Your task to perform on an android device: open app "Flipkart Online Shopping App" (install if not already installed) and enter user name: "fostered@gmail.com" and password: "negotiated" Image 0: 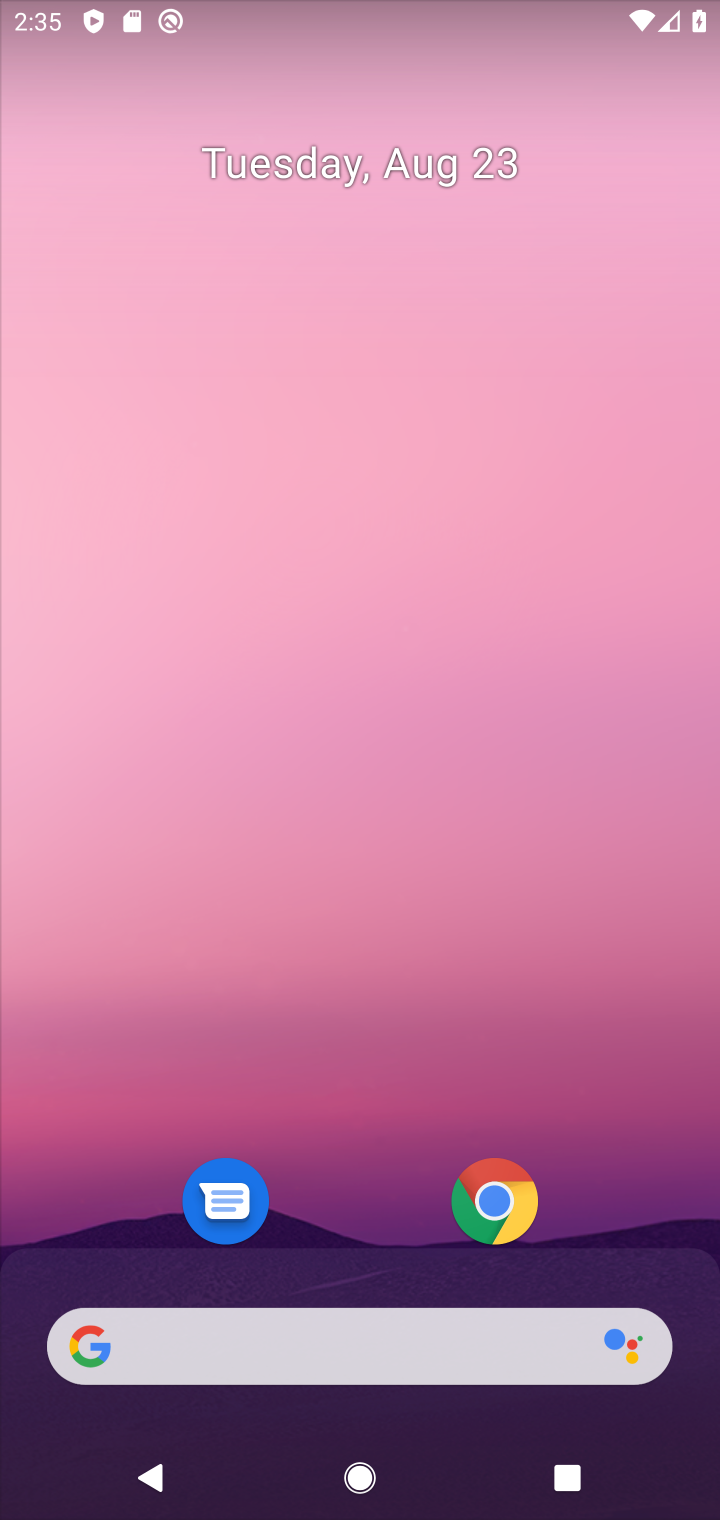
Step 0: drag from (643, 1097) to (639, 353)
Your task to perform on an android device: open app "Flipkart Online Shopping App" (install if not already installed) and enter user name: "fostered@gmail.com" and password: "negotiated" Image 1: 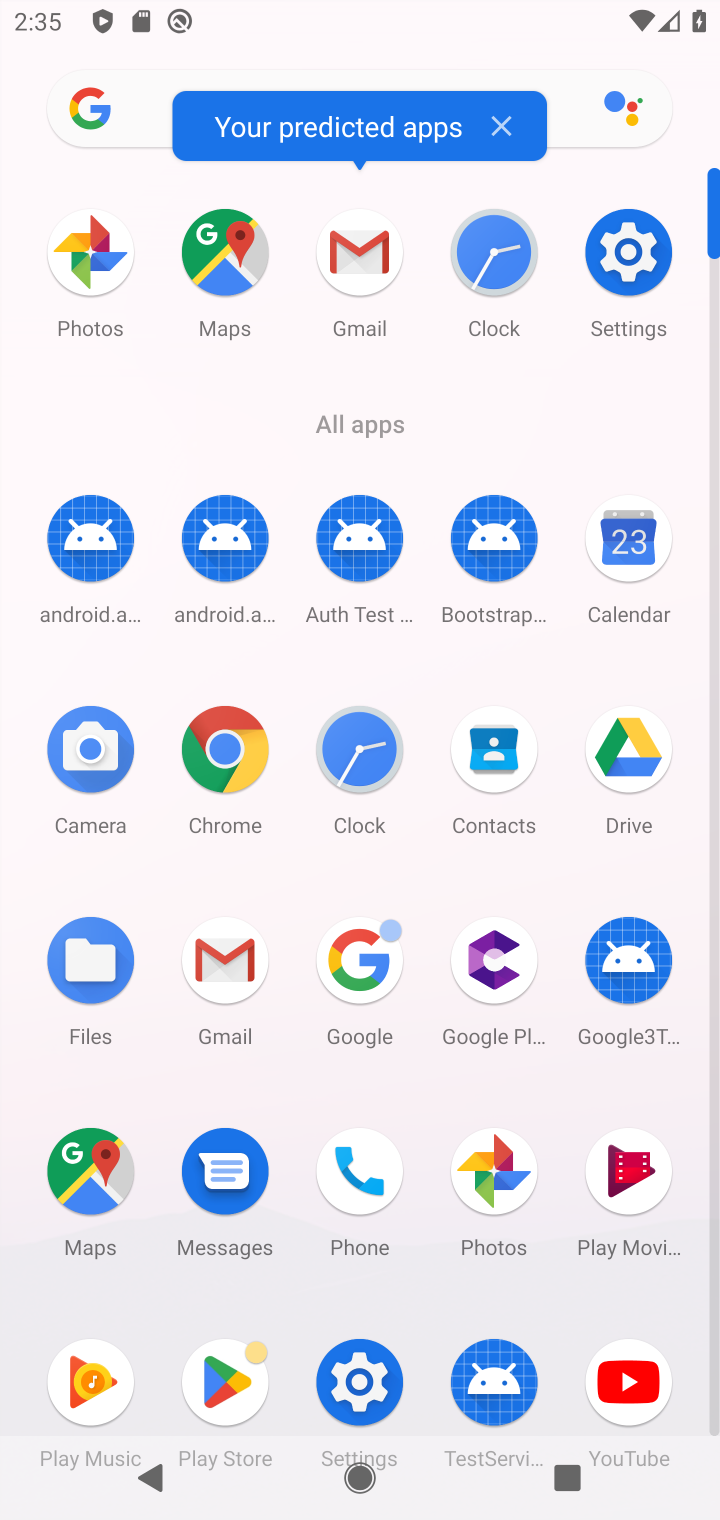
Step 1: click (712, 1366)
Your task to perform on an android device: open app "Flipkart Online Shopping App" (install if not already installed) and enter user name: "fostered@gmail.com" and password: "negotiated" Image 2: 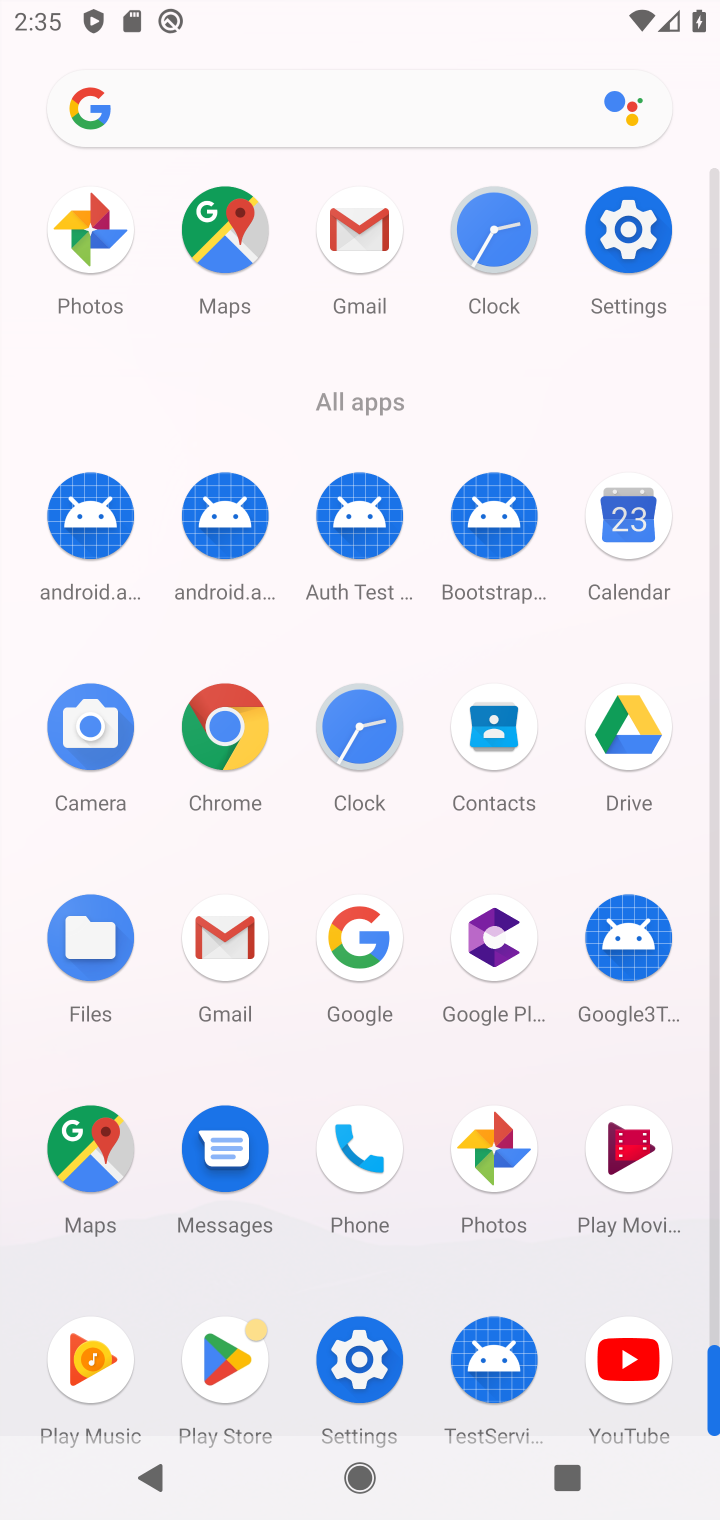
Step 2: click (227, 1355)
Your task to perform on an android device: open app "Flipkart Online Shopping App" (install if not already installed) and enter user name: "fostered@gmail.com" and password: "negotiated" Image 3: 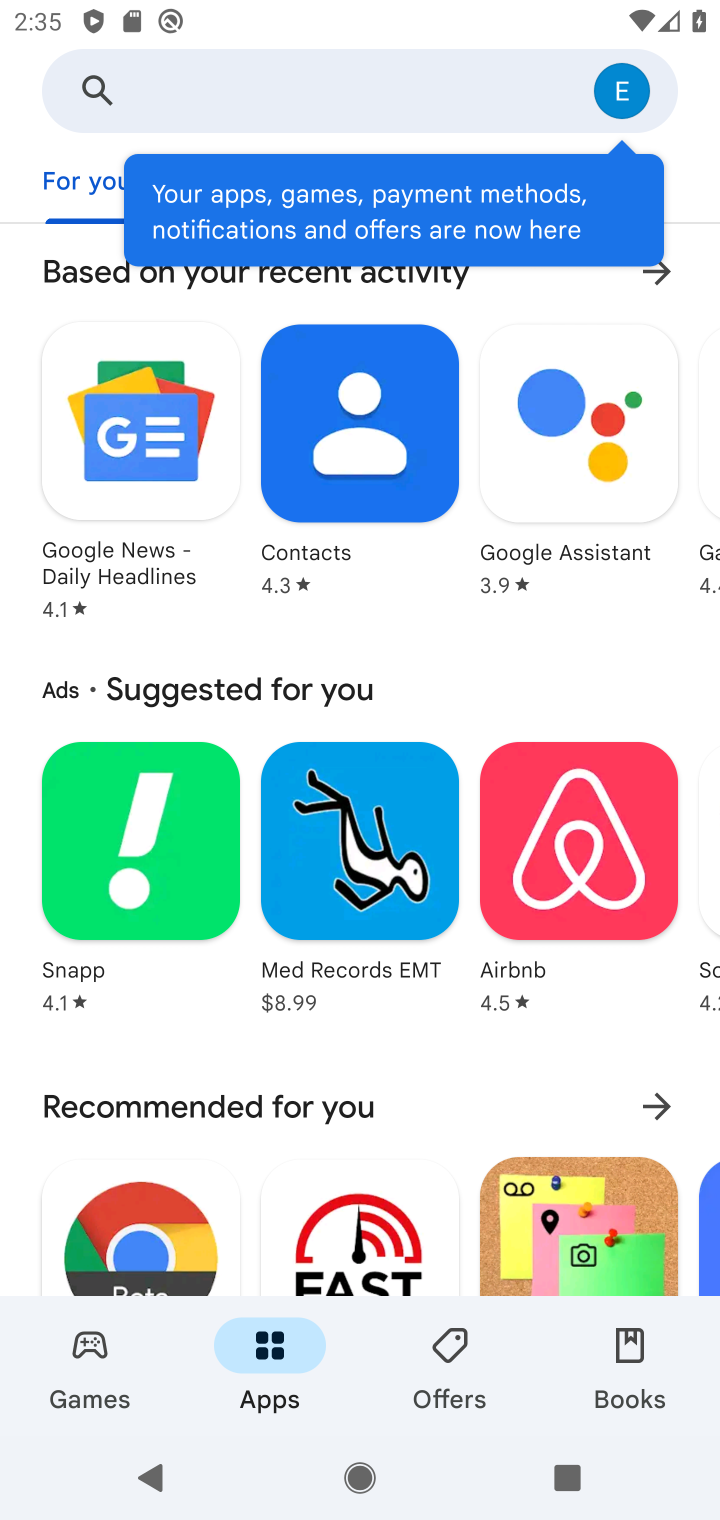
Step 3: click (93, 82)
Your task to perform on an android device: open app "Flipkart Online Shopping App" (install if not already installed) and enter user name: "fostered@gmail.com" and password: "negotiated" Image 4: 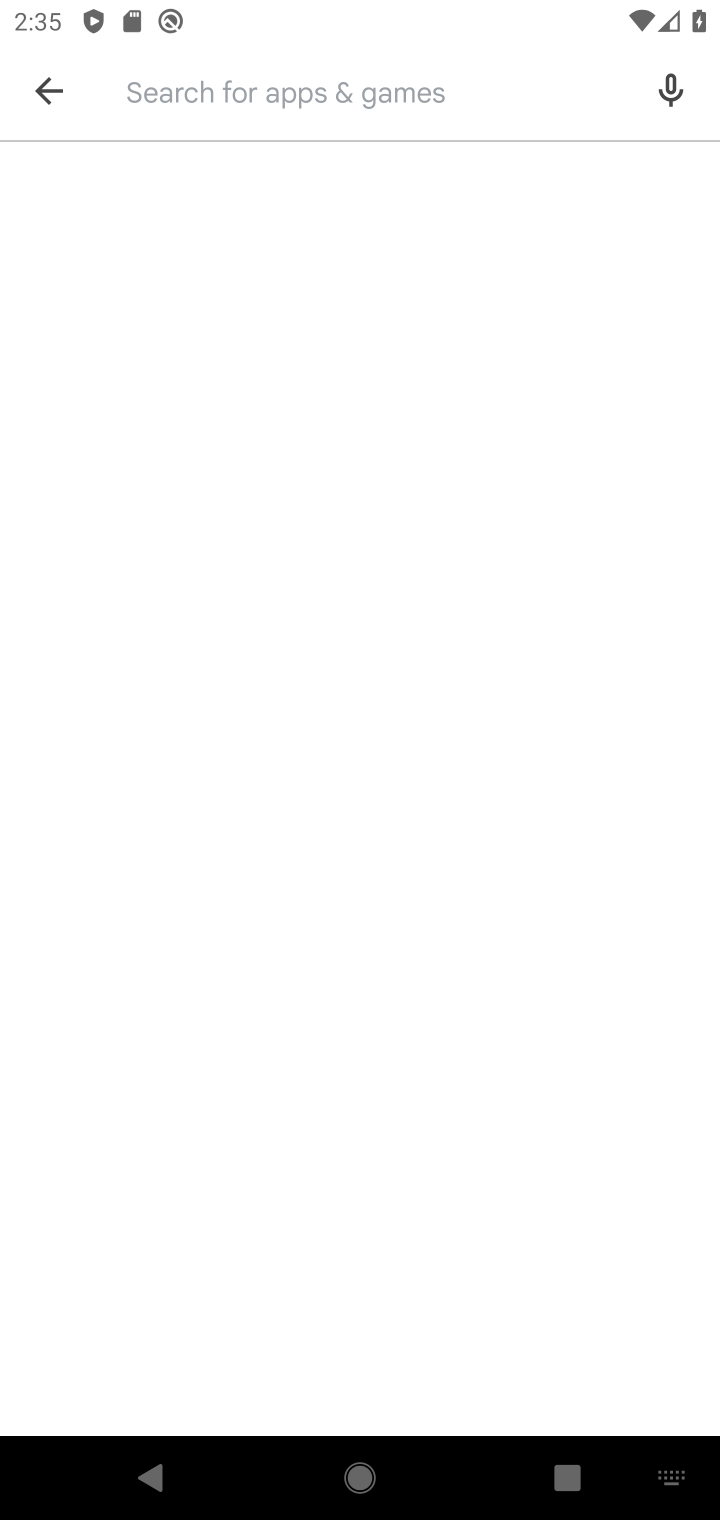
Step 4: type "Flipkart Online Shopping App"
Your task to perform on an android device: open app "Flipkart Online Shopping App" (install if not already installed) and enter user name: "fostered@gmail.com" and password: "negotiated" Image 5: 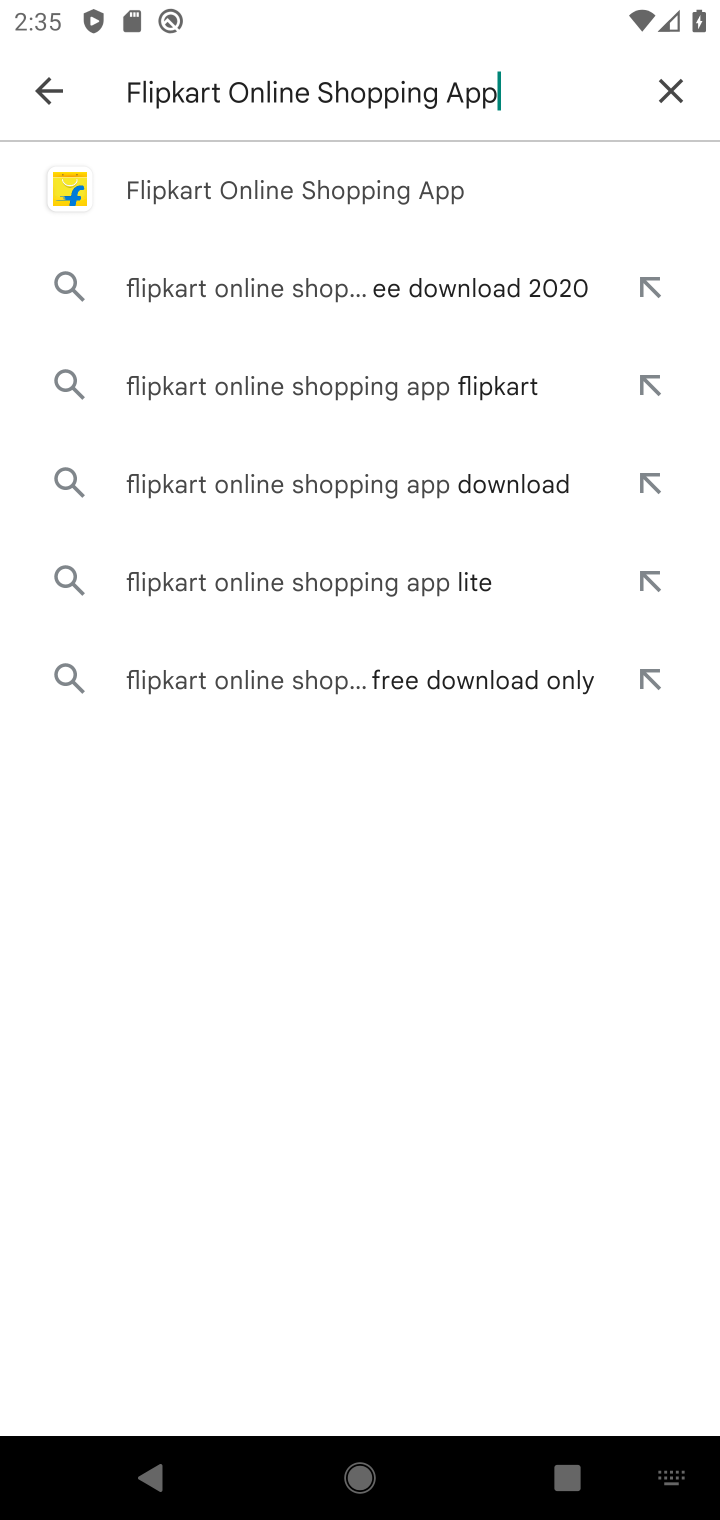
Step 5: click (251, 204)
Your task to perform on an android device: open app "Flipkart Online Shopping App" (install if not already installed) and enter user name: "fostered@gmail.com" and password: "negotiated" Image 6: 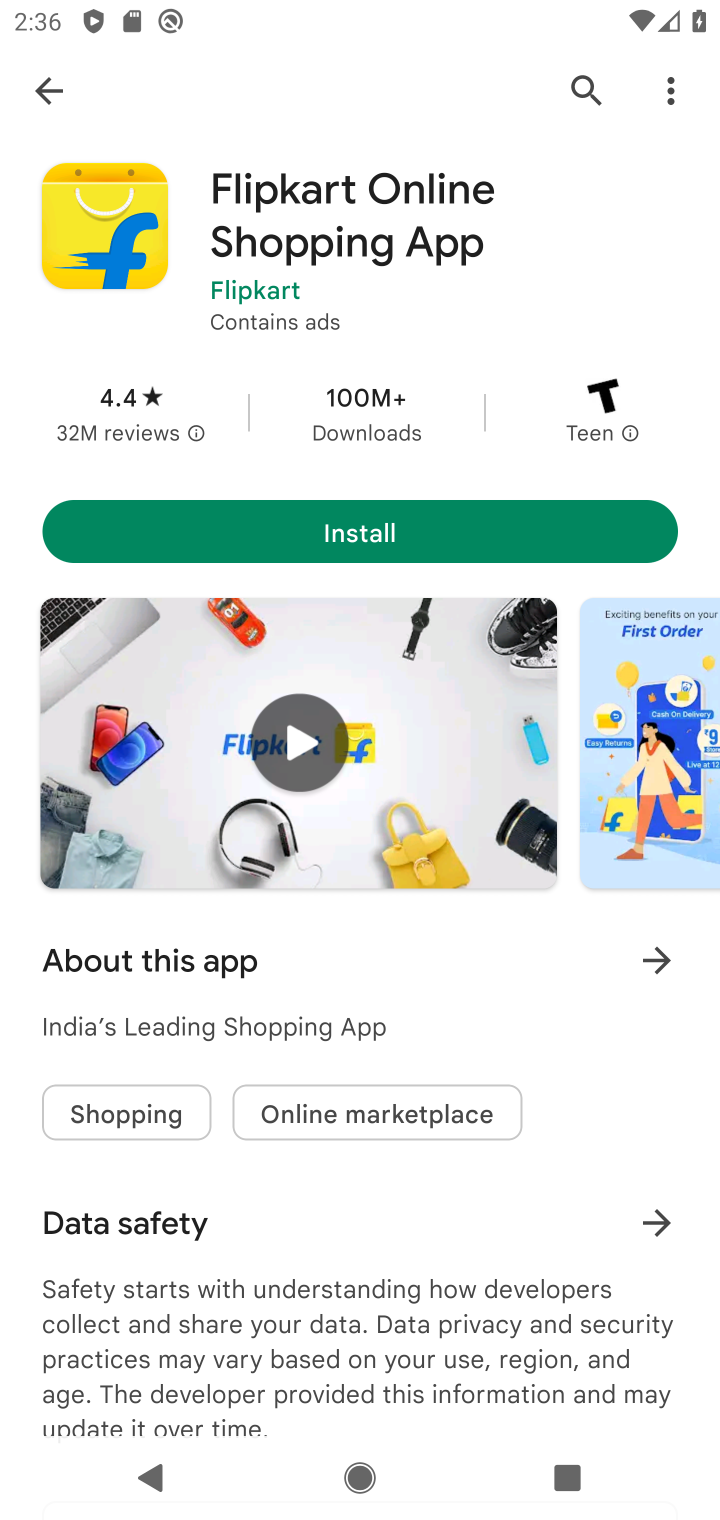
Step 6: click (360, 520)
Your task to perform on an android device: open app "Flipkart Online Shopping App" (install if not already installed) and enter user name: "fostered@gmail.com" and password: "negotiated" Image 7: 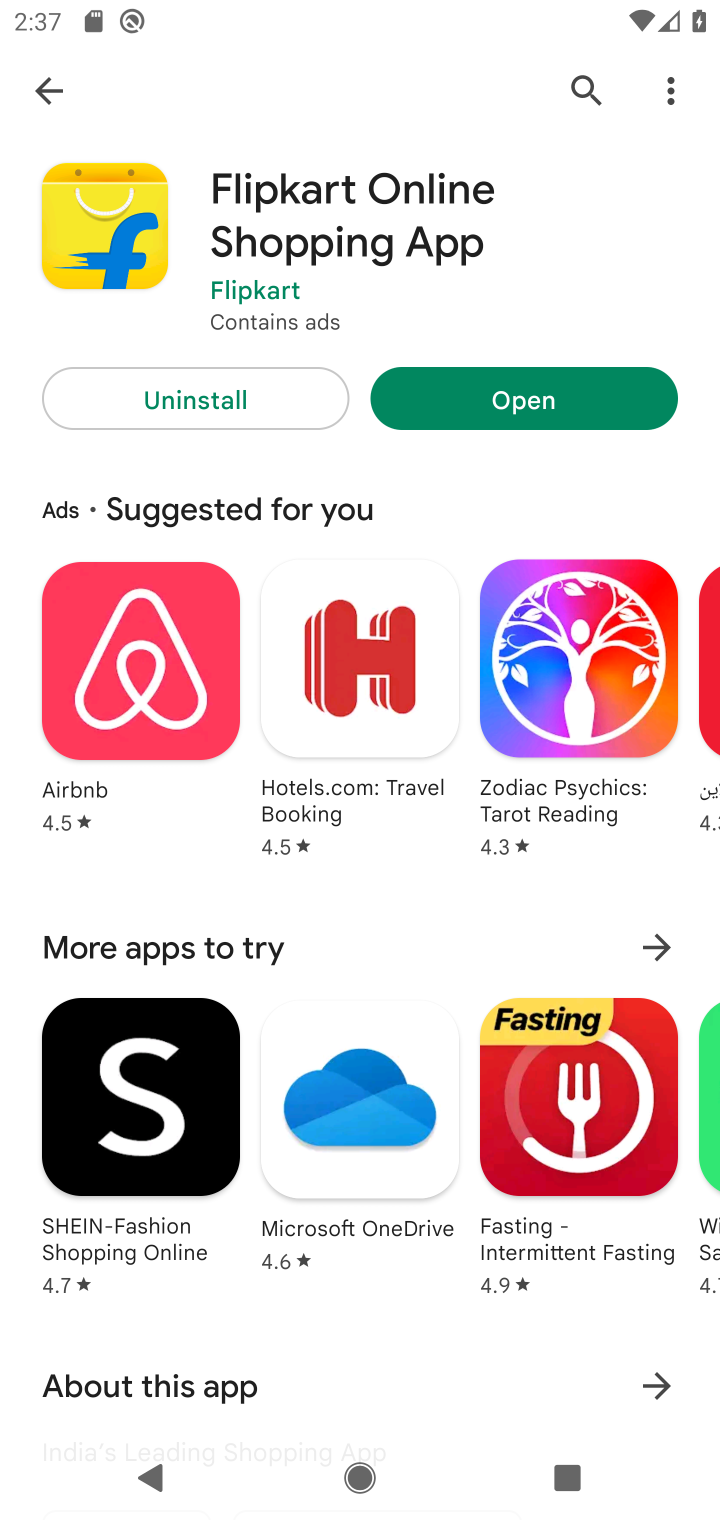
Step 7: click (542, 411)
Your task to perform on an android device: open app "Flipkart Online Shopping App" (install if not already installed) and enter user name: "fostered@gmail.com" and password: "negotiated" Image 8: 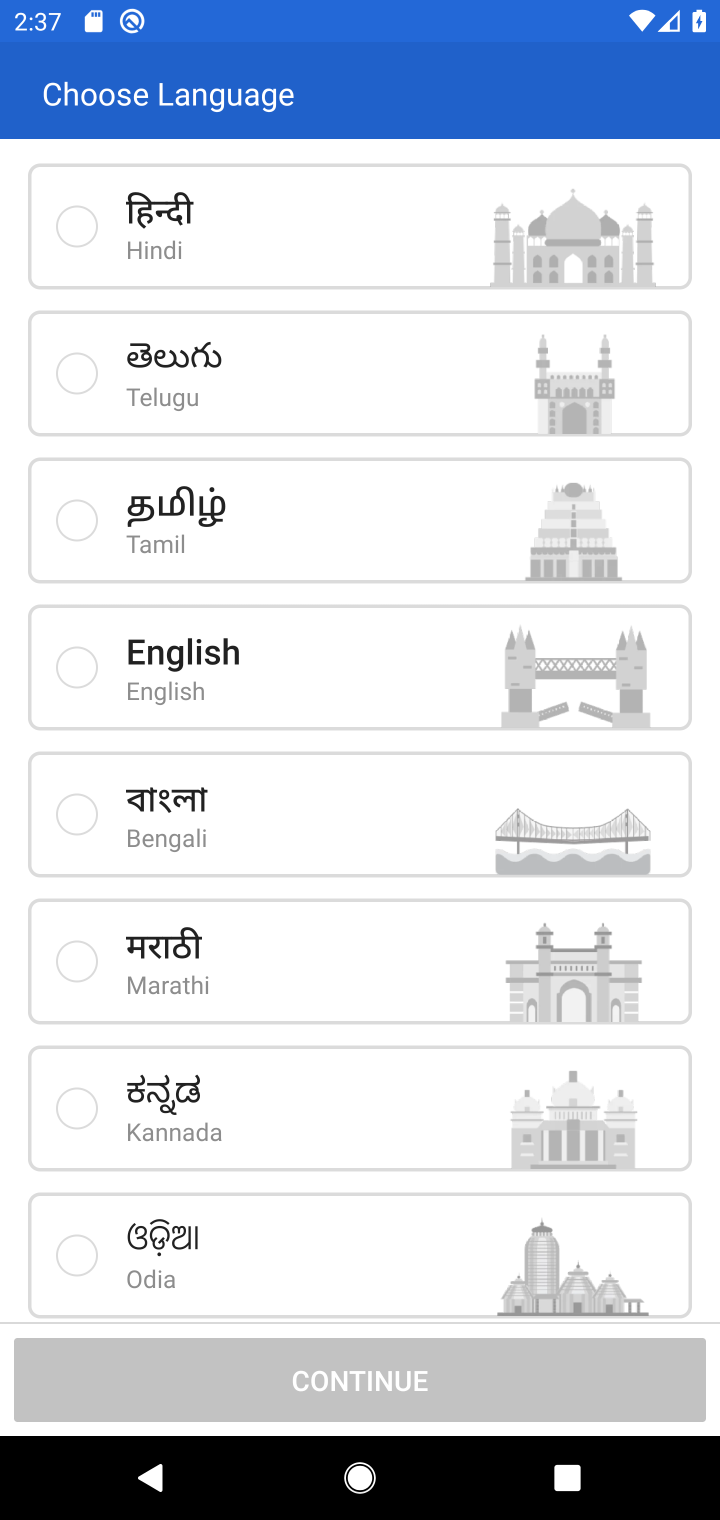
Step 8: click (201, 668)
Your task to perform on an android device: open app "Flipkart Online Shopping App" (install if not already installed) and enter user name: "fostered@gmail.com" and password: "negotiated" Image 9: 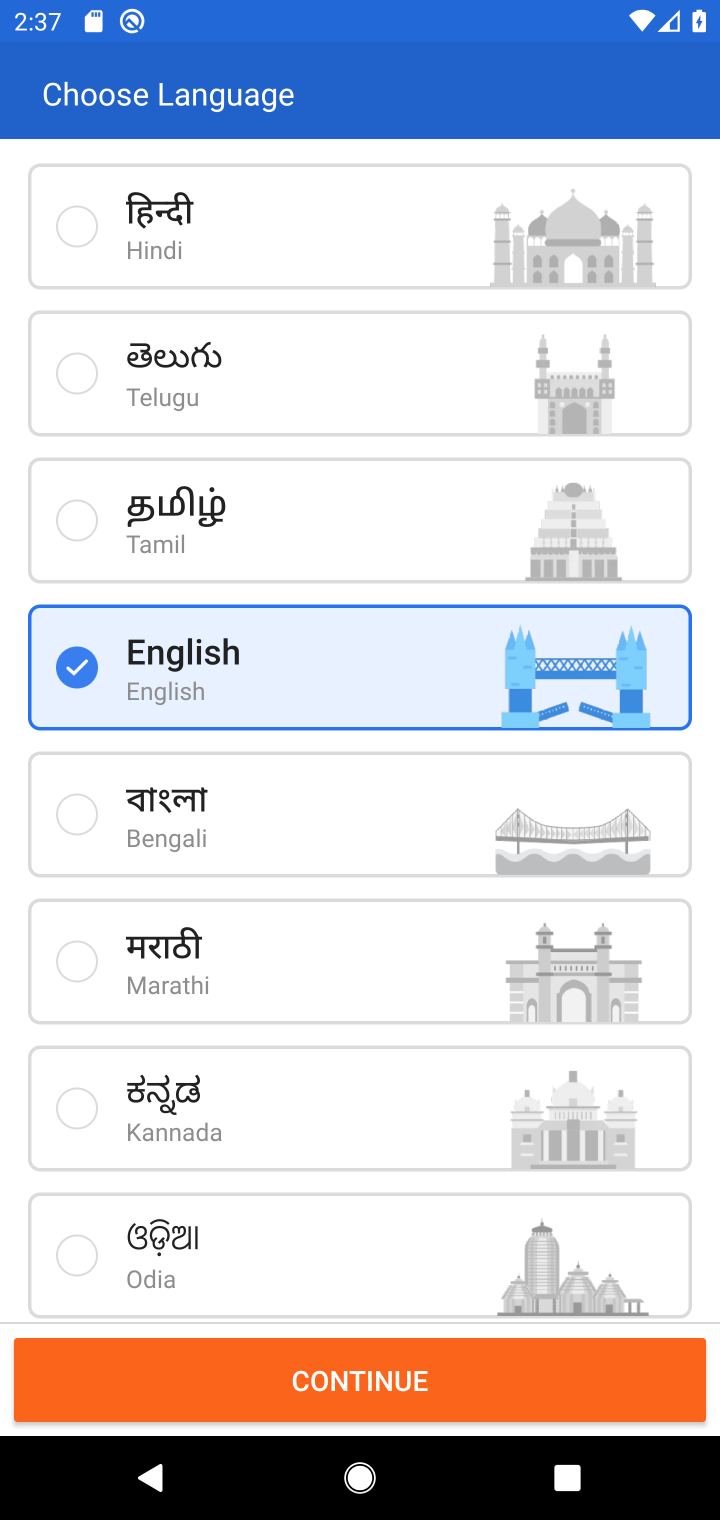
Step 9: click (364, 1370)
Your task to perform on an android device: open app "Flipkart Online Shopping App" (install if not already installed) and enter user name: "fostered@gmail.com" and password: "negotiated" Image 10: 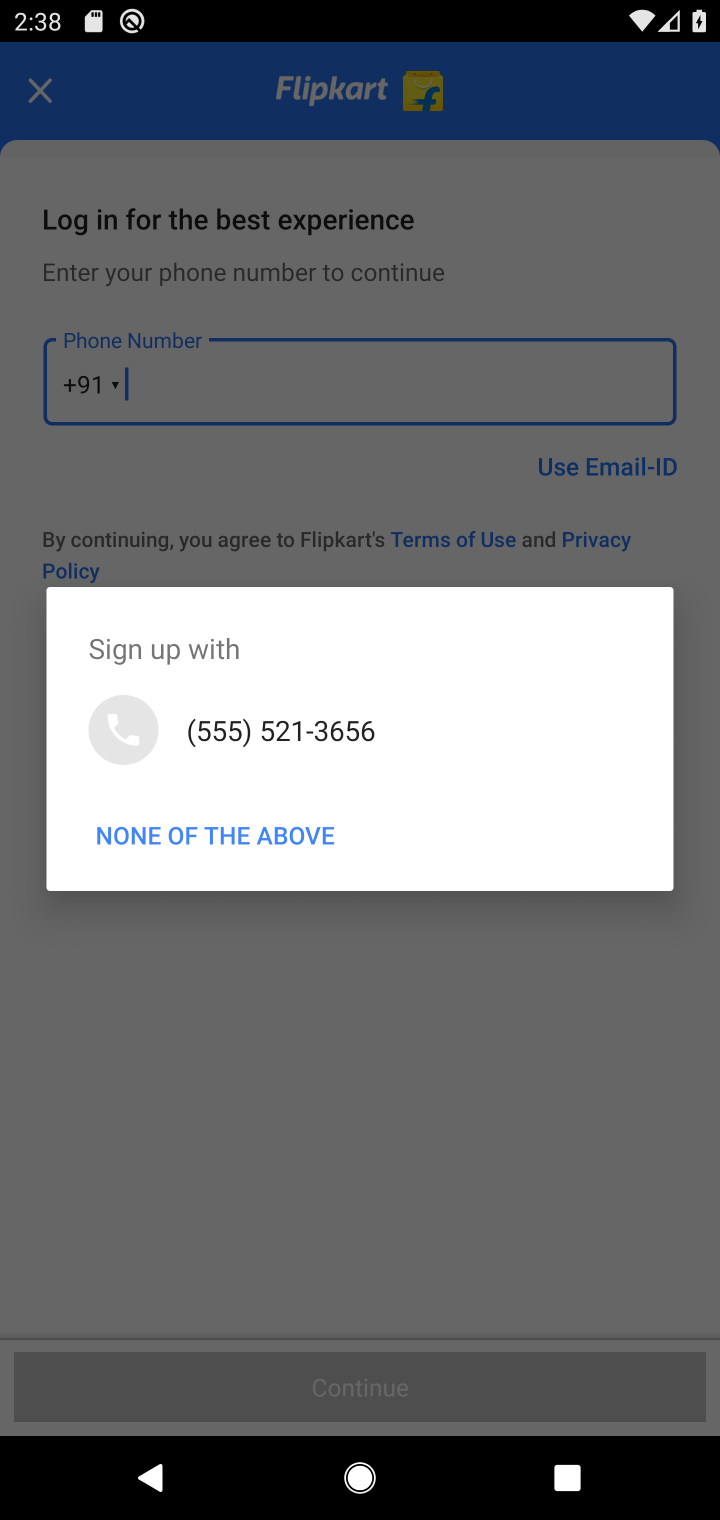
Step 10: task complete